Your task to perform on an android device: move an email to a new category in the gmail app Image 0: 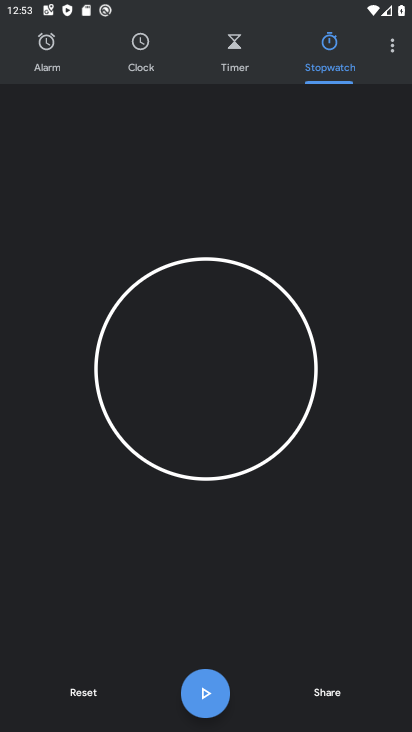
Step 0: press home button
Your task to perform on an android device: move an email to a new category in the gmail app Image 1: 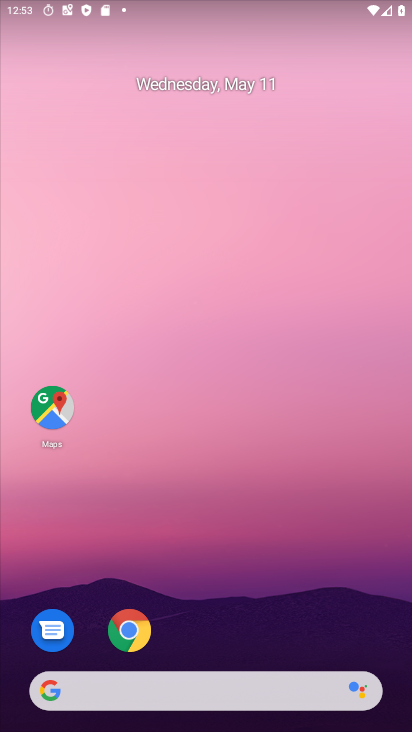
Step 1: drag from (280, 416) to (284, 85)
Your task to perform on an android device: move an email to a new category in the gmail app Image 2: 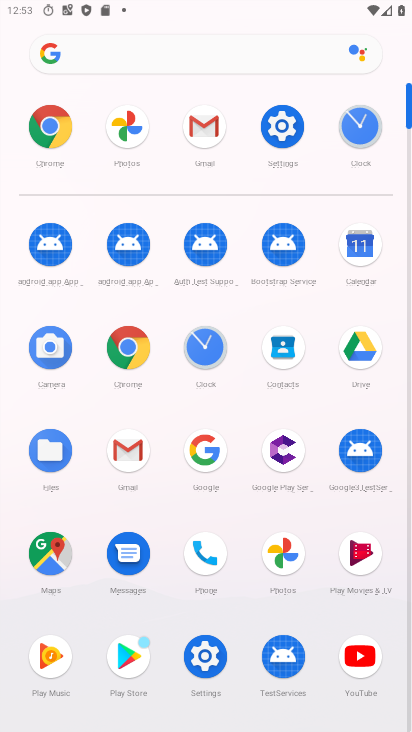
Step 2: click (197, 129)
Your task to perform on an android device: move an email to a new category in the gmail app Image 3: 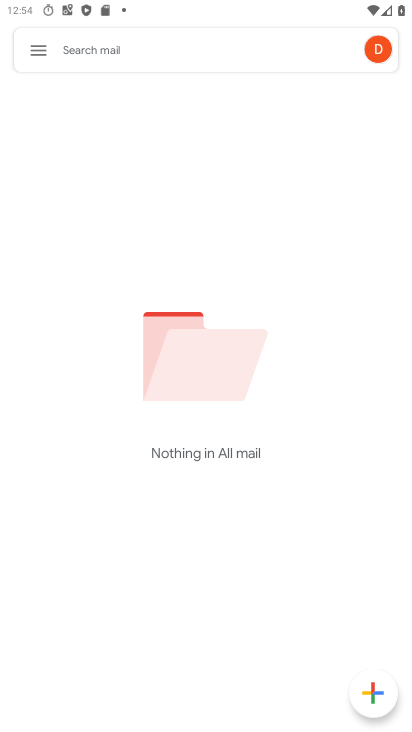
Step 3: task complete